Your task to perform on an android device: Open the calendar and show me this week's events? Image 0: 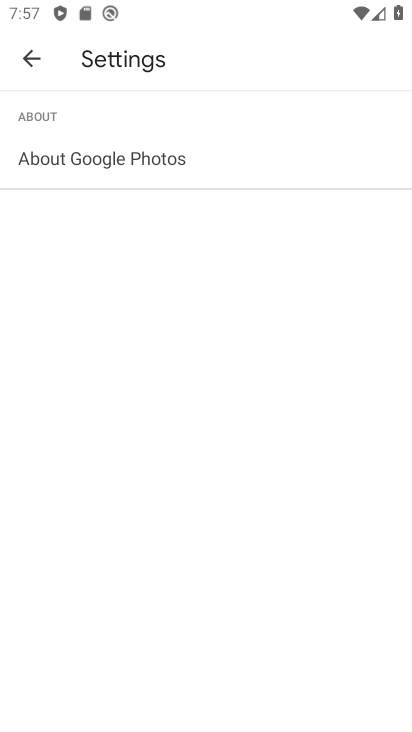
Step 0: press home button
Your task to perform on an android device: Open the calendar and show me this week's events? Image 1: 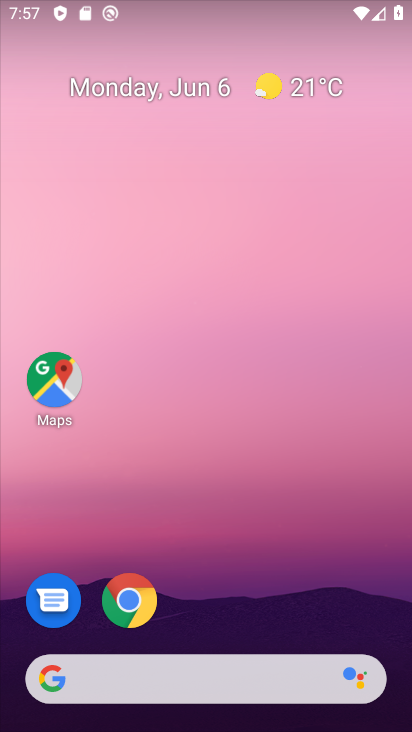
Step 1: drag from (223, 624) to (251, 89)
Your task to perform on an android device: Open the calendar and show me this week's events? Image 2: 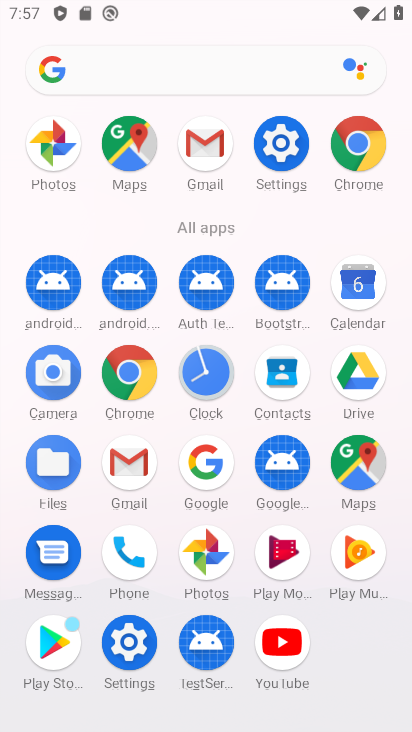
Step 2: click (364, 294)
Your task to perform on an android device: Open the calendar and show me this week's events? Image 3: 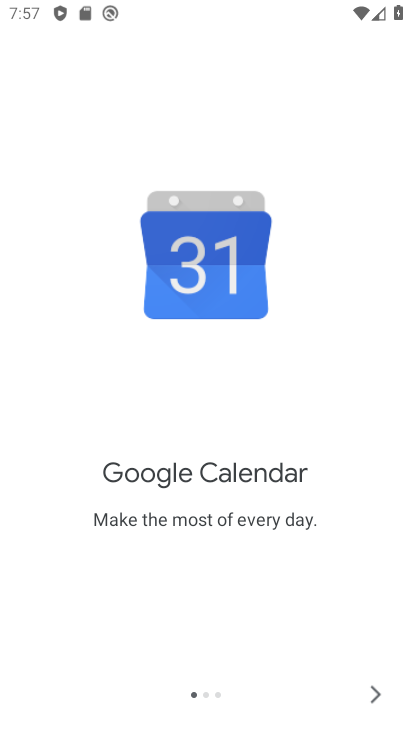
Step 3: click (361, 684)
Your task to perform on an android device: Open the calendar and show me this week's events? Image 4: 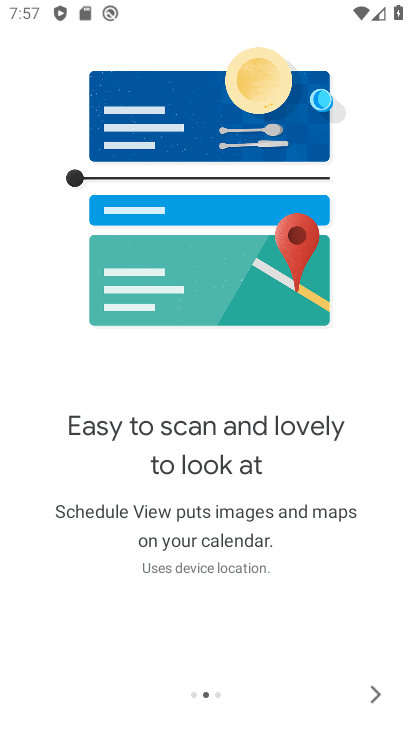
Step 4: click (363, 687)
Your task to perform on an android device: Open the calendar and show me this week's events? Image 5: 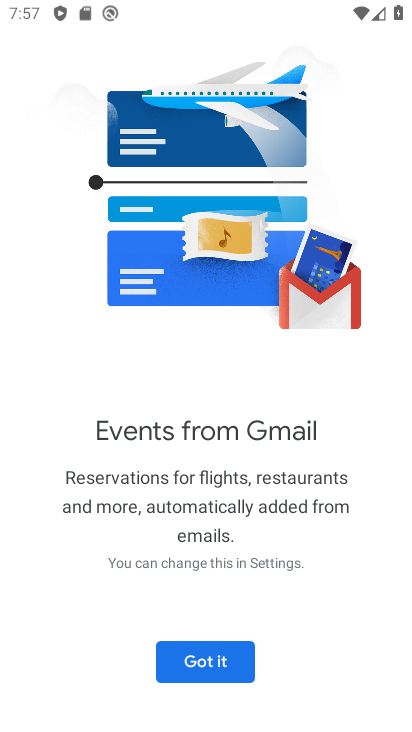
Step 5: click (182, 661)
Your task to perform on an android device: Open the calendar and show me this week's events? Image 6: 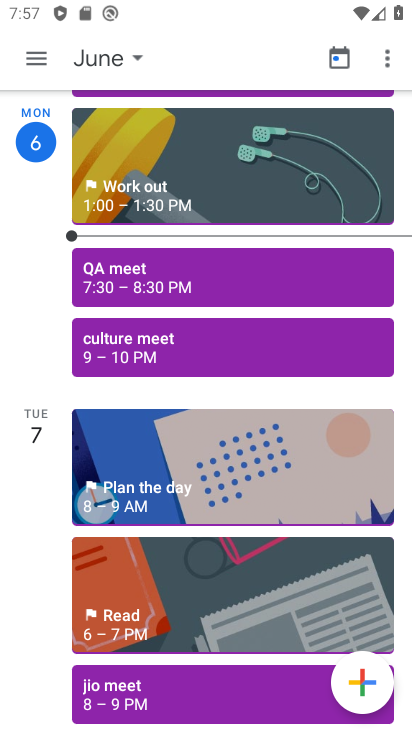
Step 6: click (31, 60)
Your task to perform on an android device: Open the calendar and show me this week's events? Image 7: 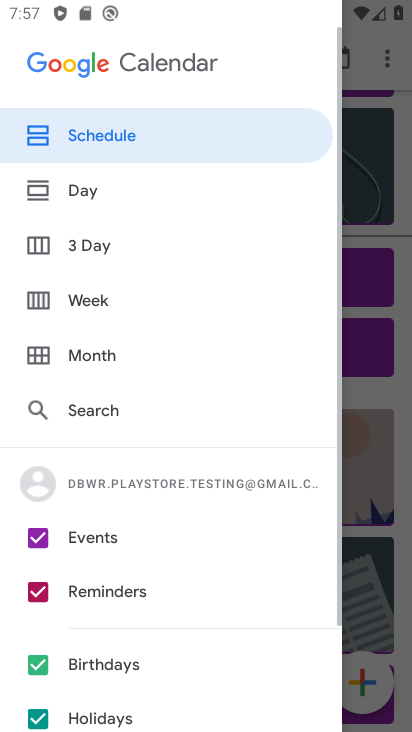
Step 7: click (79, 599)
Your task to perform on an android device: Open the calendar and show me this week's events? Image 8: 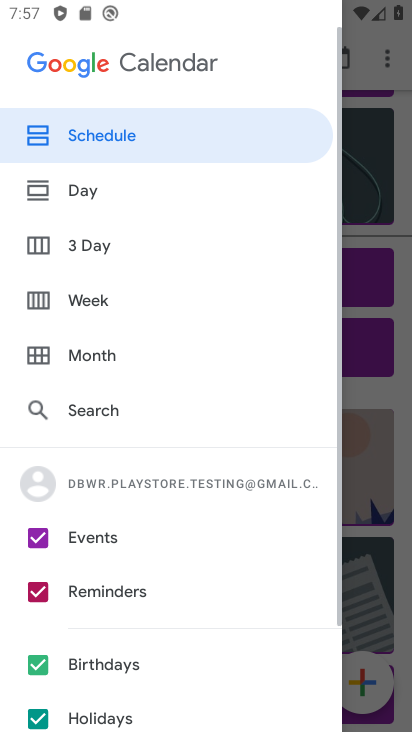
Step 8: click (83, 672)
Your task to perform on an android device: Open the calendar and show me this week's events? Image 9: 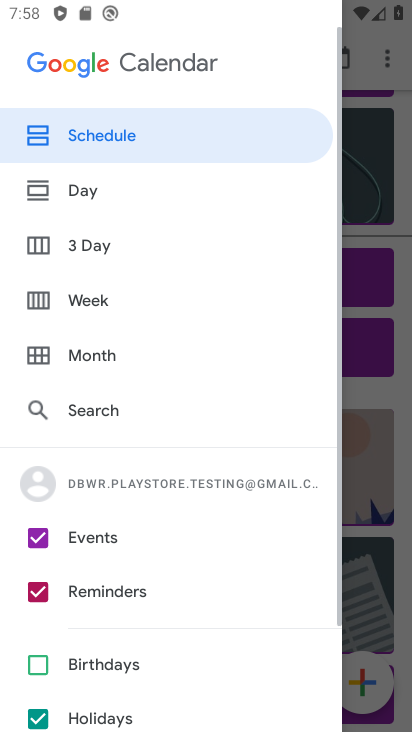
Step 9: click (79, 591)
Your task to perform on an android device: Open the calendar and show me this week's events? Image 10: 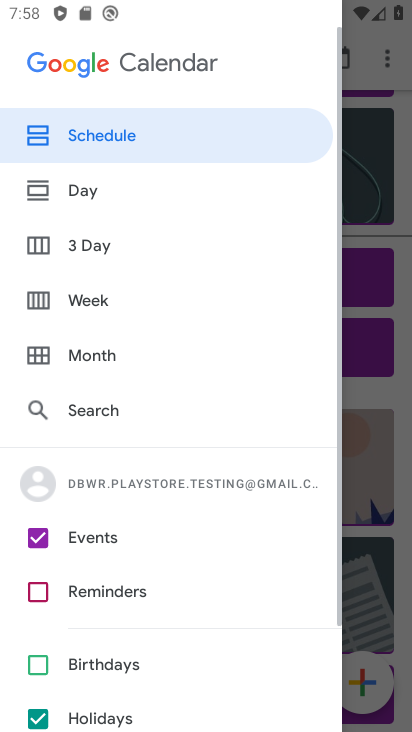
Step 10: drag from (73, 657) to (108, 511)
Your task to perform on an android device: Open the calendar and show me this week's events? Image 11: 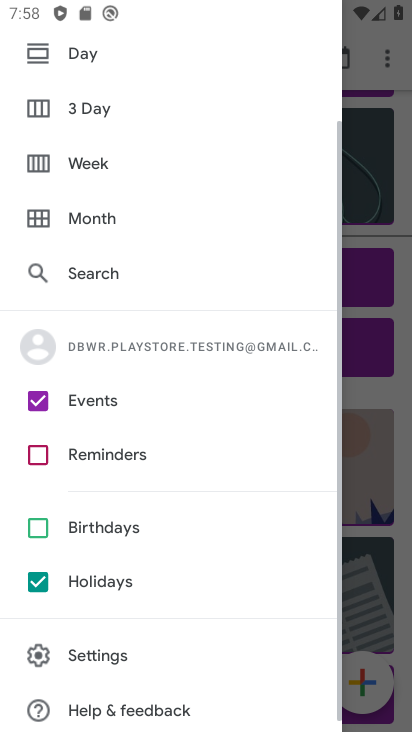
Step 11: click (89, 578)
Your task to perform on an android device: Open the calendar and show me this week's events? Image 12: 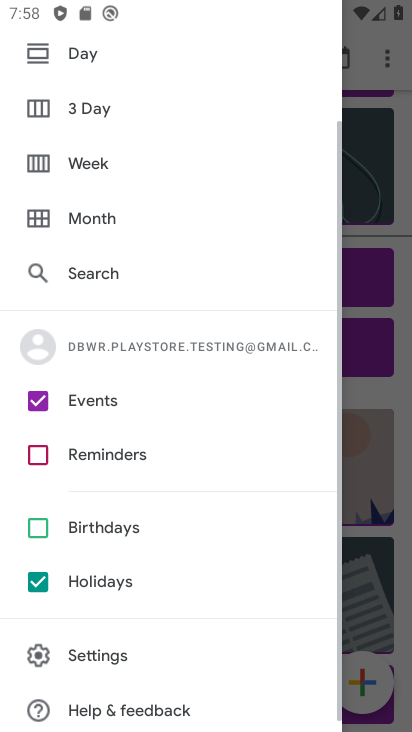
Step 12: click (44, 591)
Your task to perform on an android device: Open the calendar and show me this week's events? Image 13: 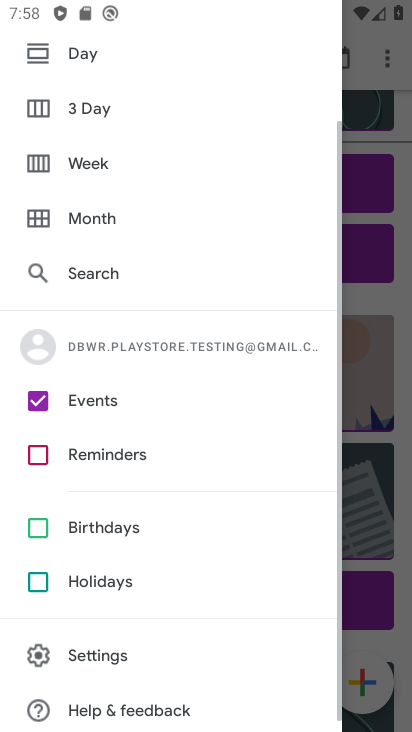
Step 13: click (99, 164)
Your task to perform on an android device: Open the calendar and show me this week's events? Image 14: 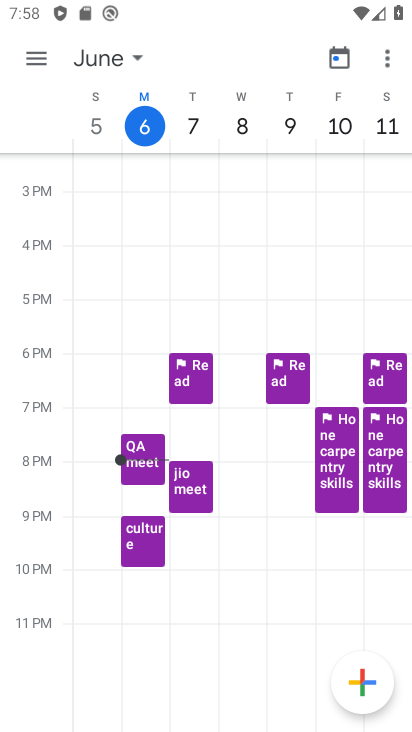
Step 14: task complete